Your task to perform on an android device: Go to Amazon Image 0: 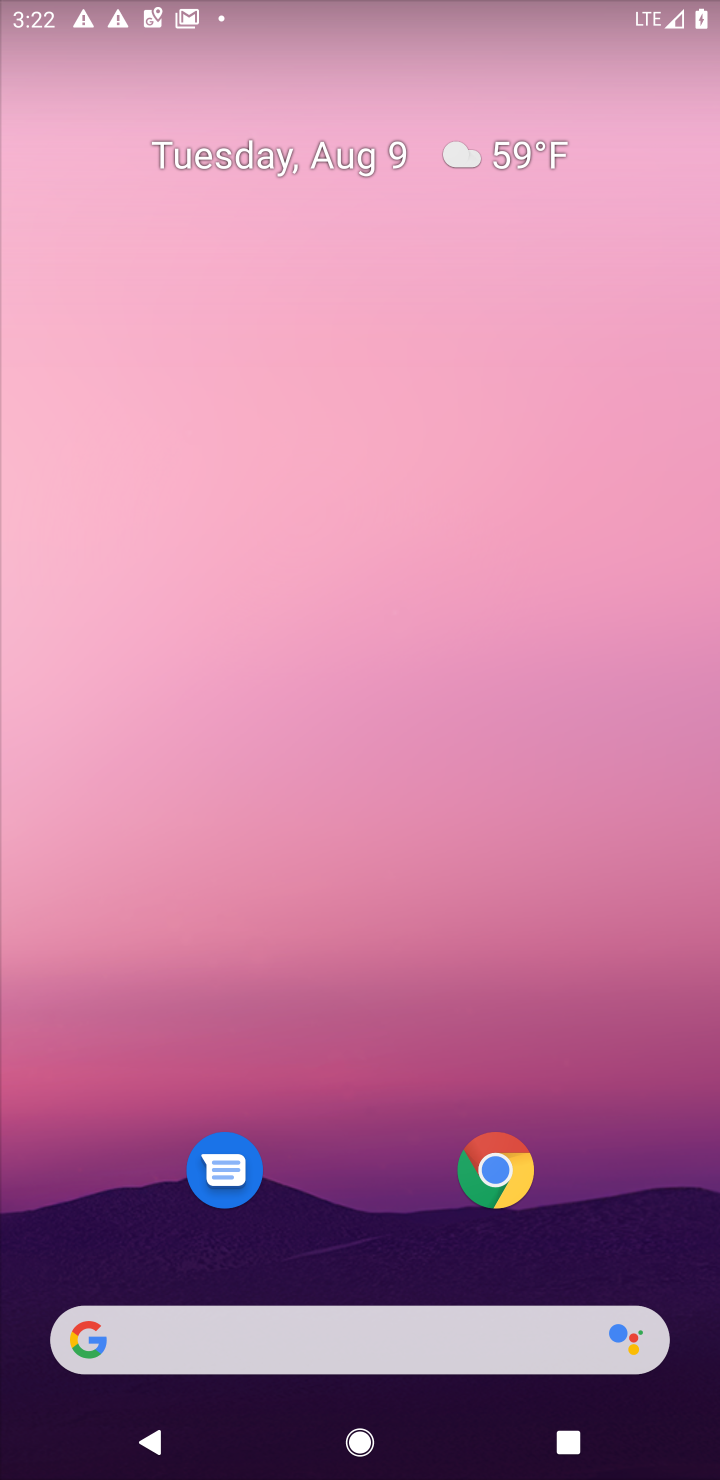
Step 0: press home button
Your task to perform on an android device: Go to Amazon Image 1: 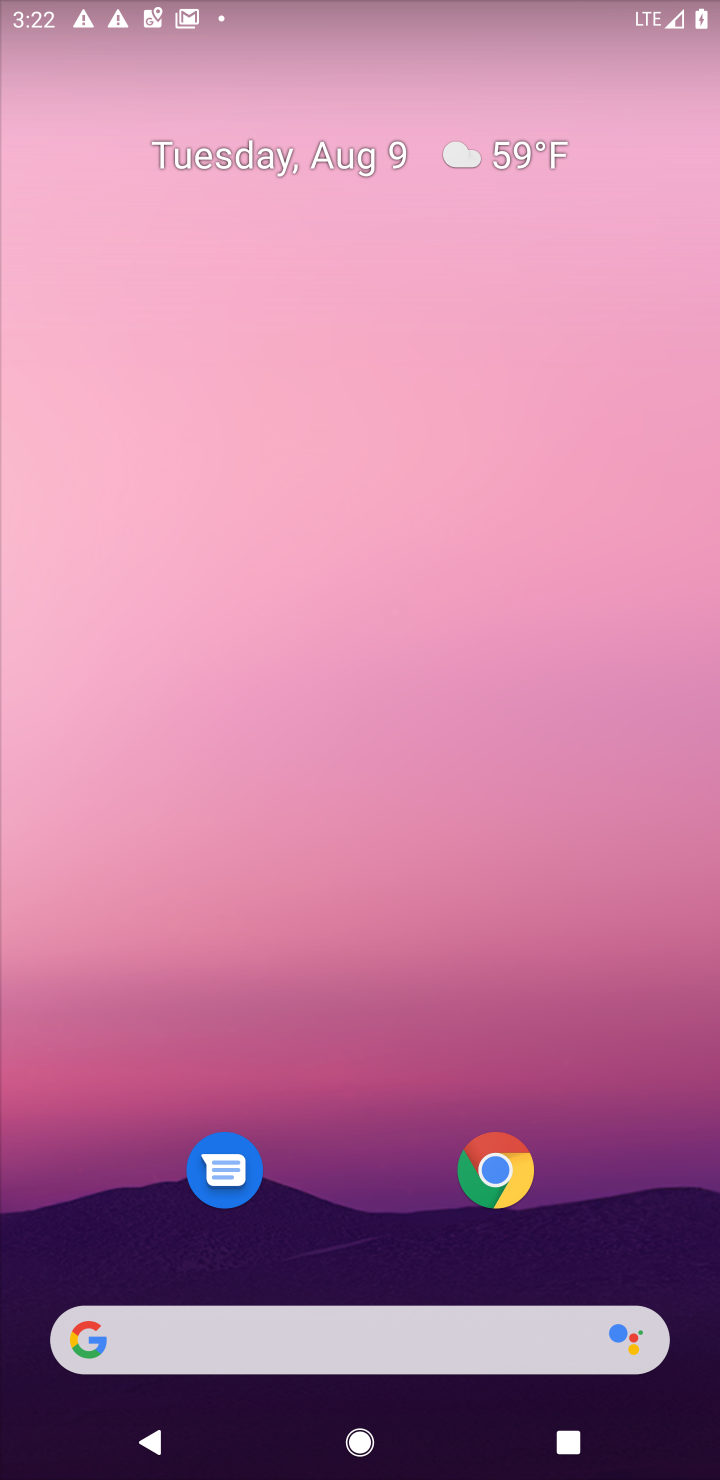
Step 1: click (85, 1344)
Your task to perform on an android device: Go to Amazon Image 2: 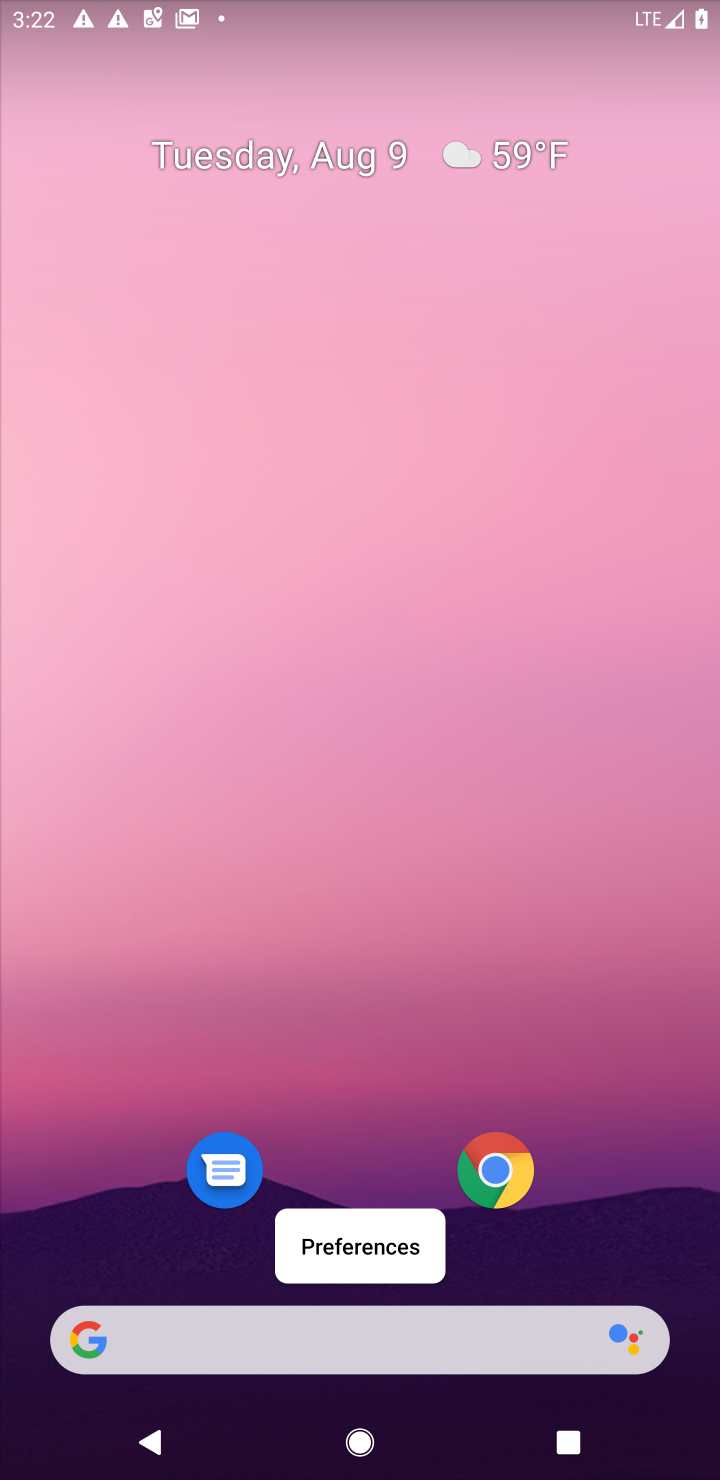
Step 2: click (79, 1344)
Your task to perform on an android device: Go to Amazon Image 3: 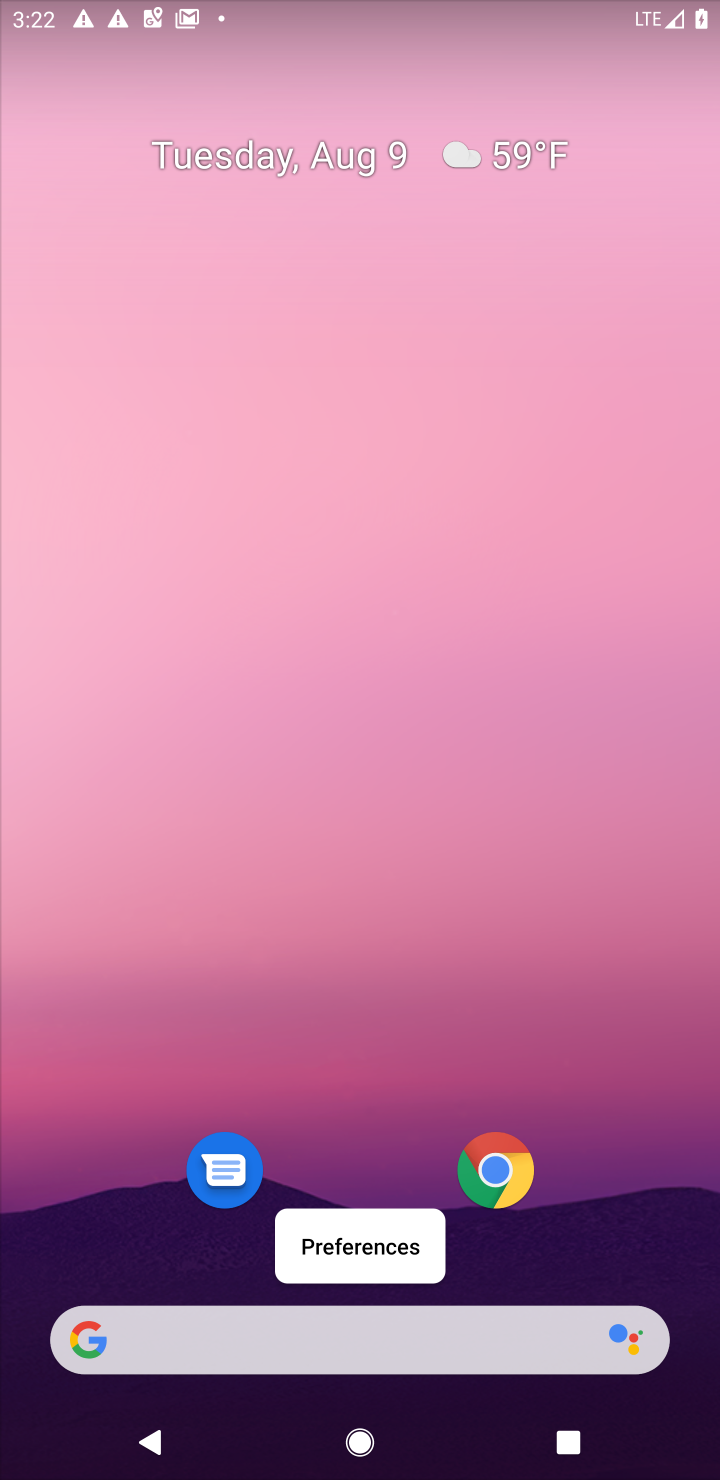
Step 3: click (96, 1355)
Your task to perform on an android device: Go to Amazon Image 4: 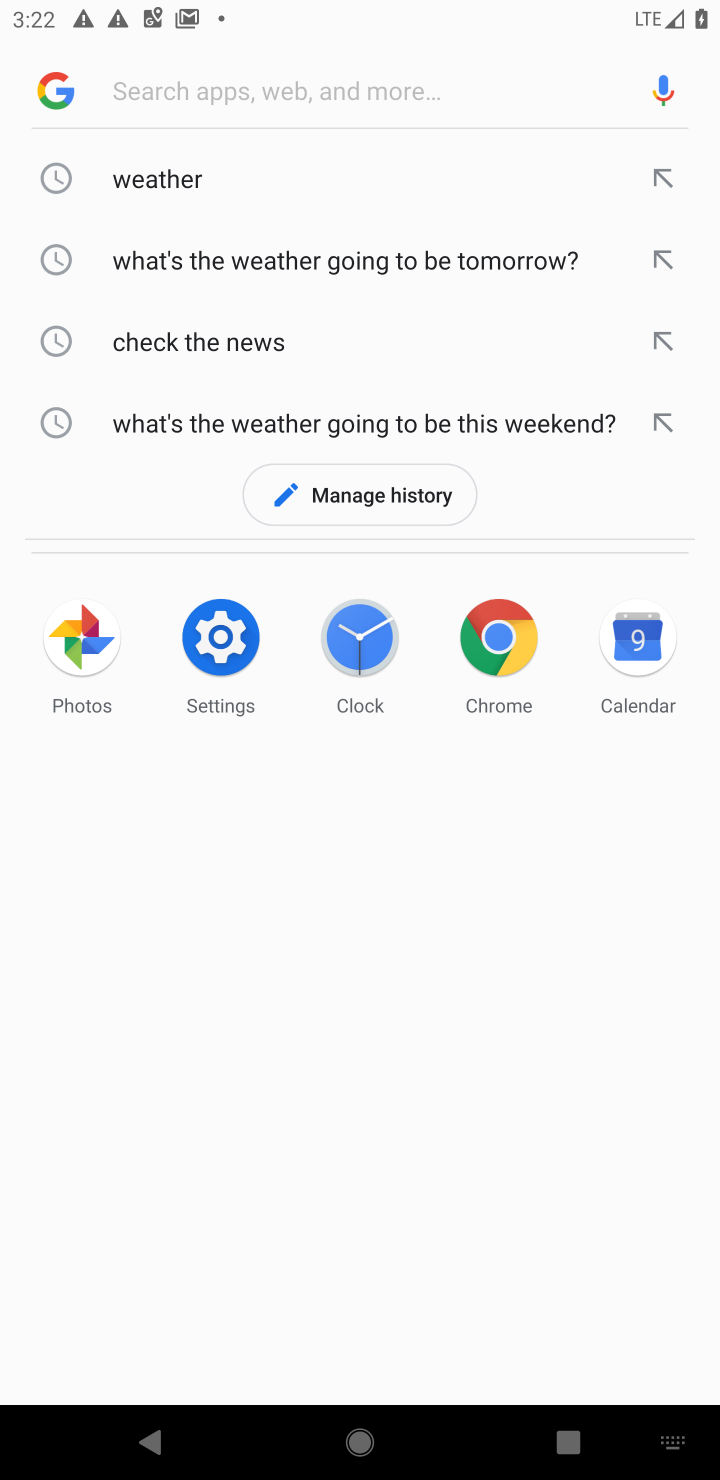
Step 4: type " Amazon"
Your task to perform on an android device: Go to Amazon Image 5: 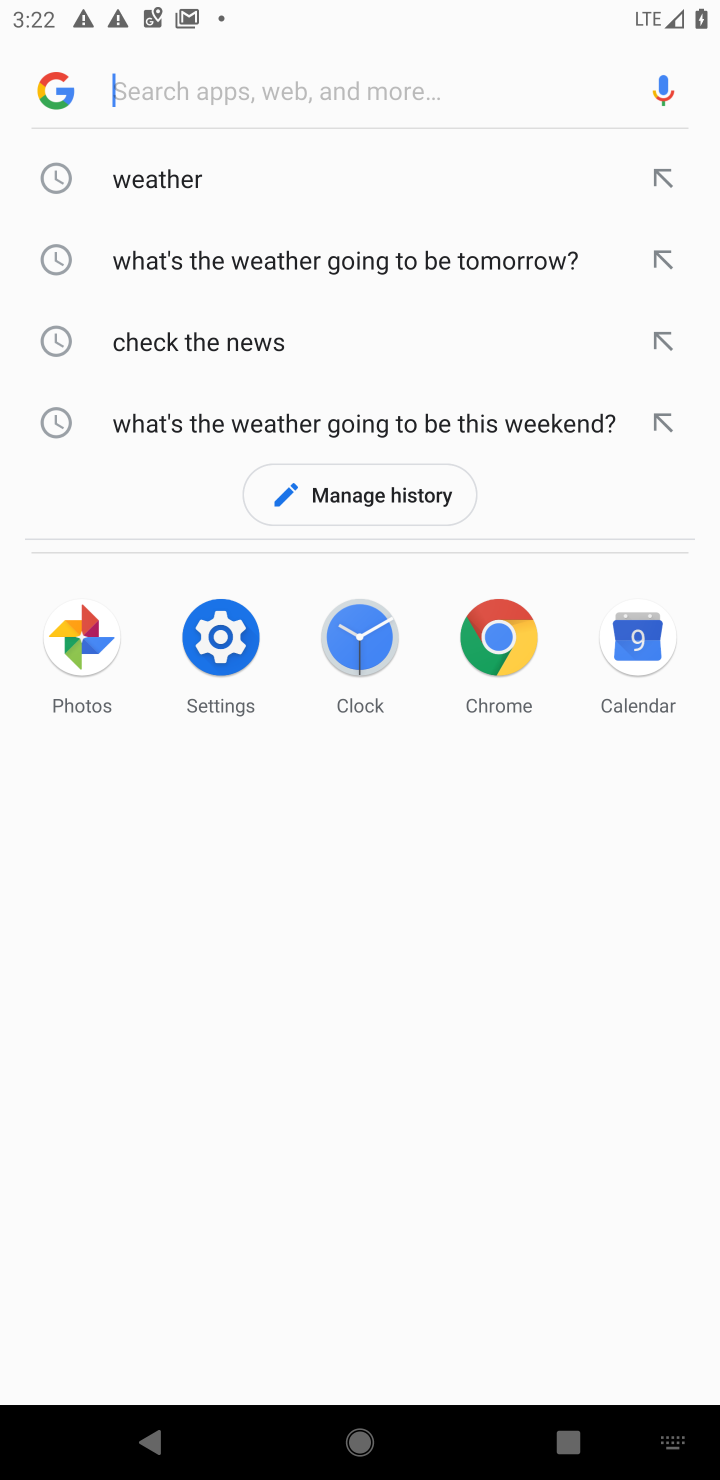
Step 5: click (140, 77)
Your task to perform on an android device: Go to Amazon Image 6: 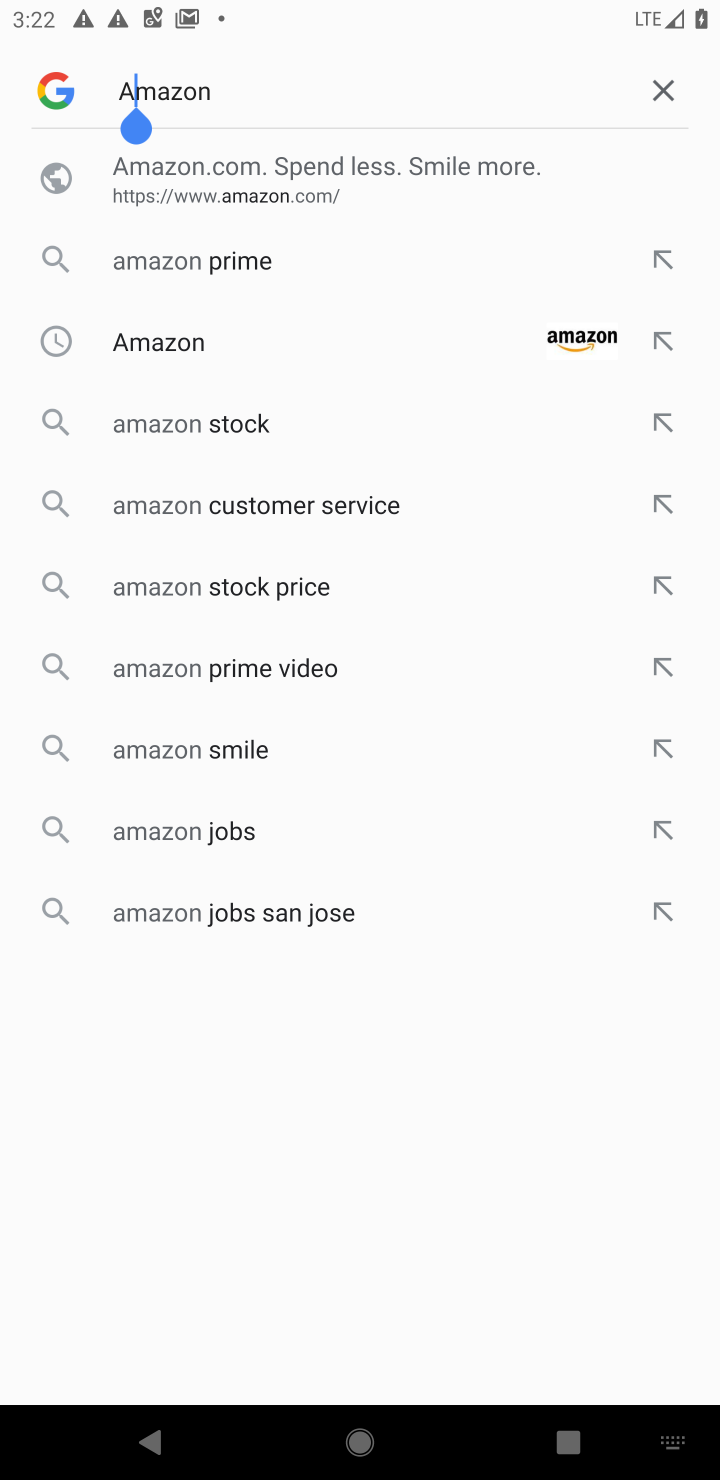
Step 6: click (577, 335)
Your task to perform on an android device: Go to Amazon Image 7: 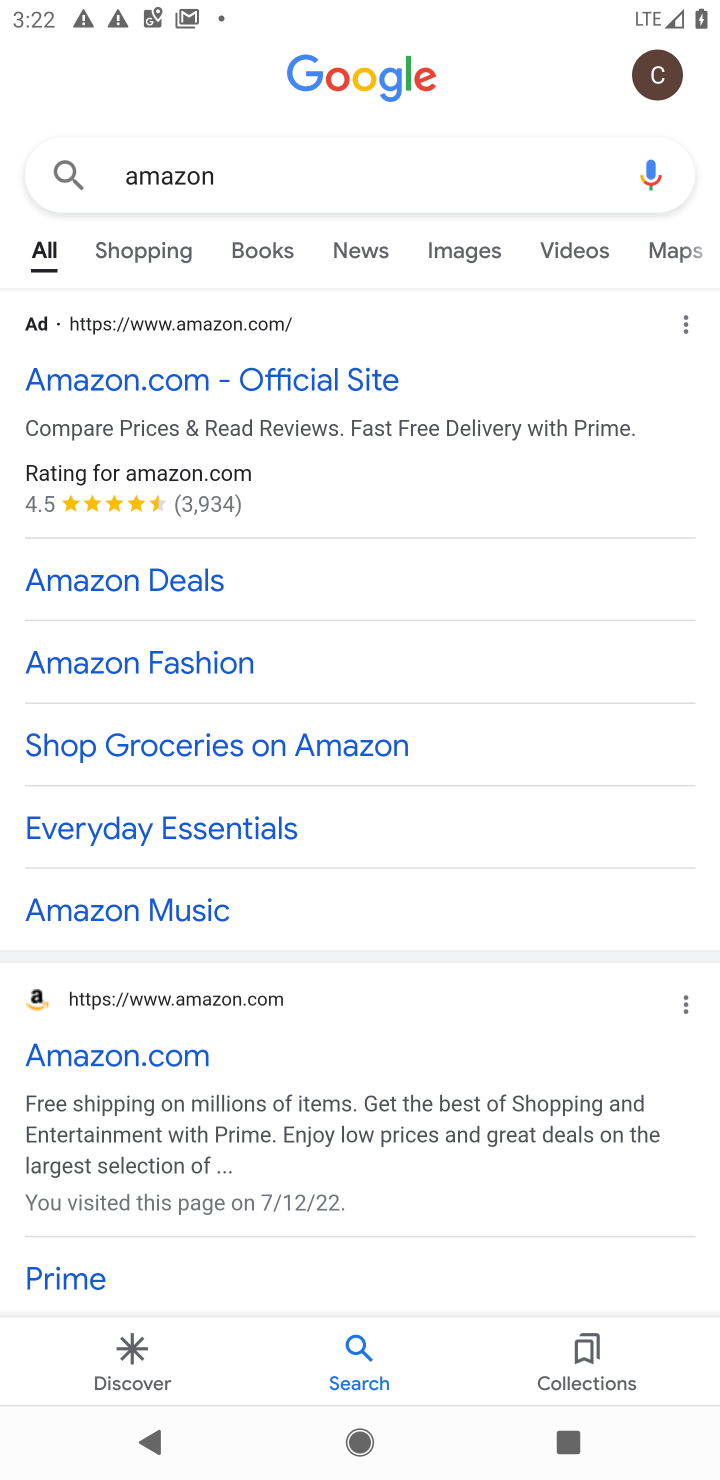
Step 7: click (181, 1062)
Your task to perform on an android device: Go to Amazon Image 8: 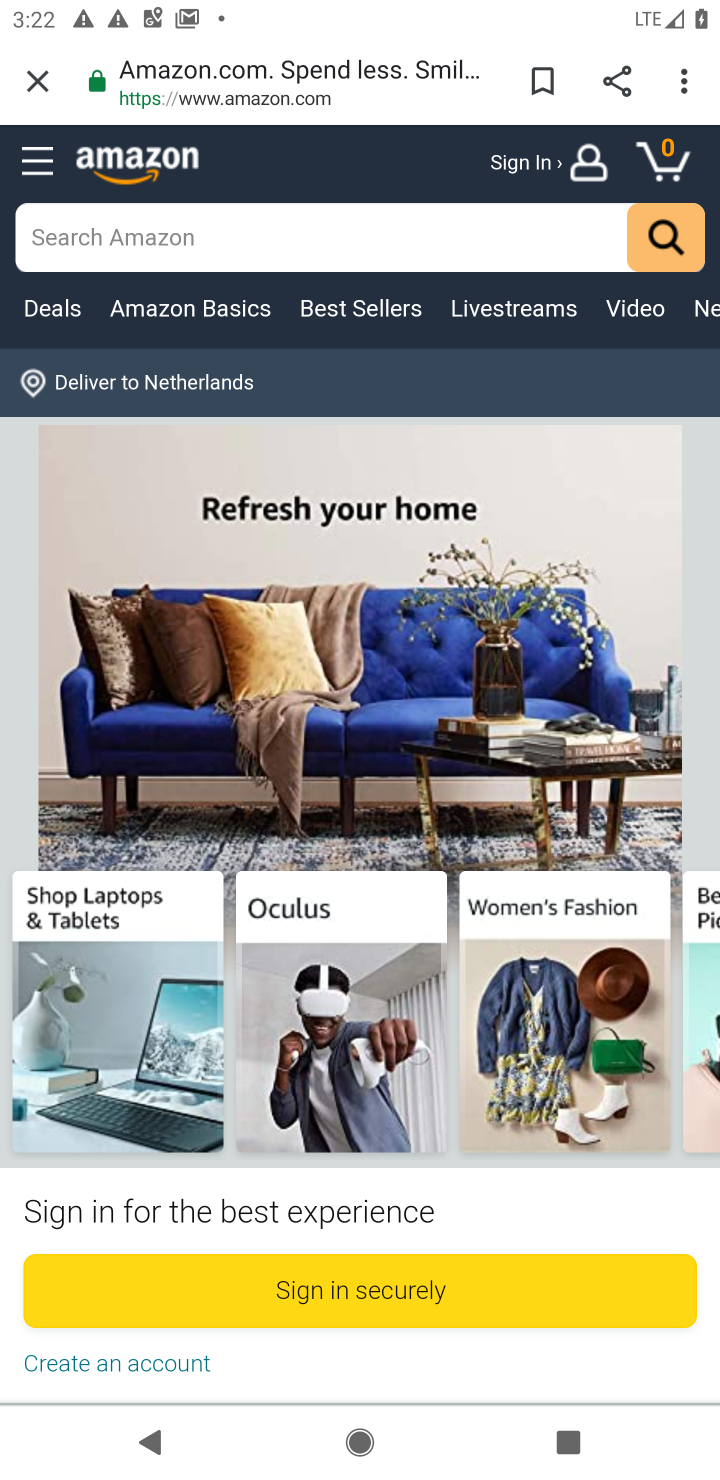
Step 8: task complete